Your task to perform on an android device: Clear the cart on costco. Image 0: 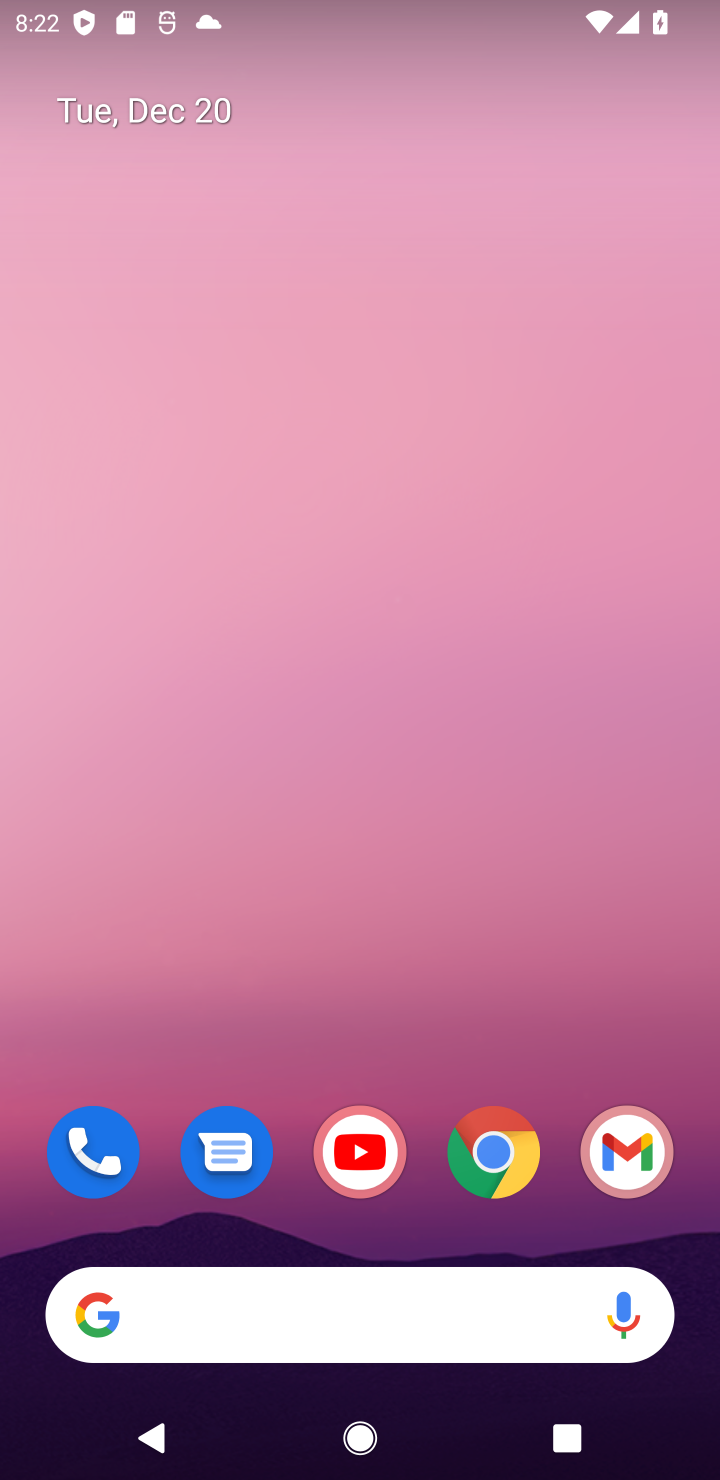
Step 0: click (476, 1151)
Your task to perform on an android device: Clear the cart on costco. Image 1: 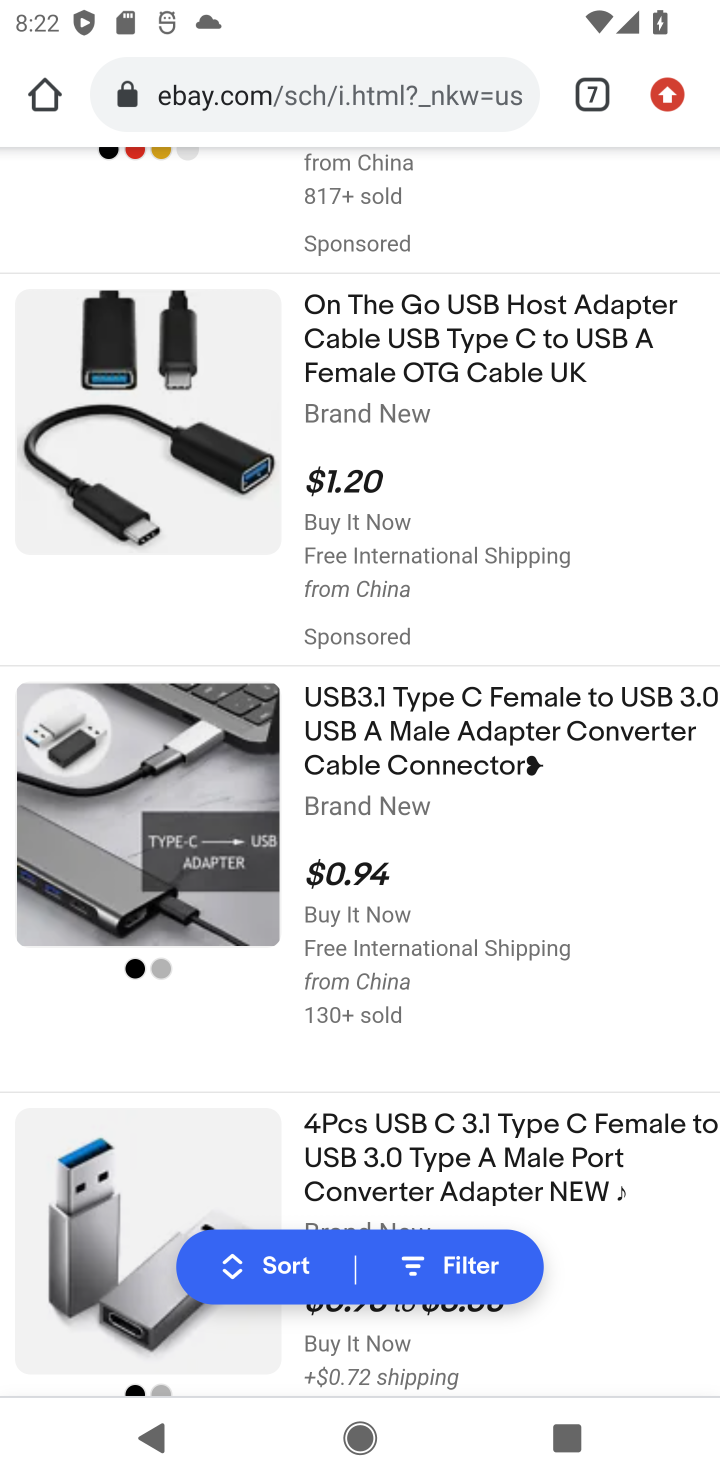
Step 1: click (583, 75)
Your task to perform on an android device: Clear the cart on costco. Image 2: 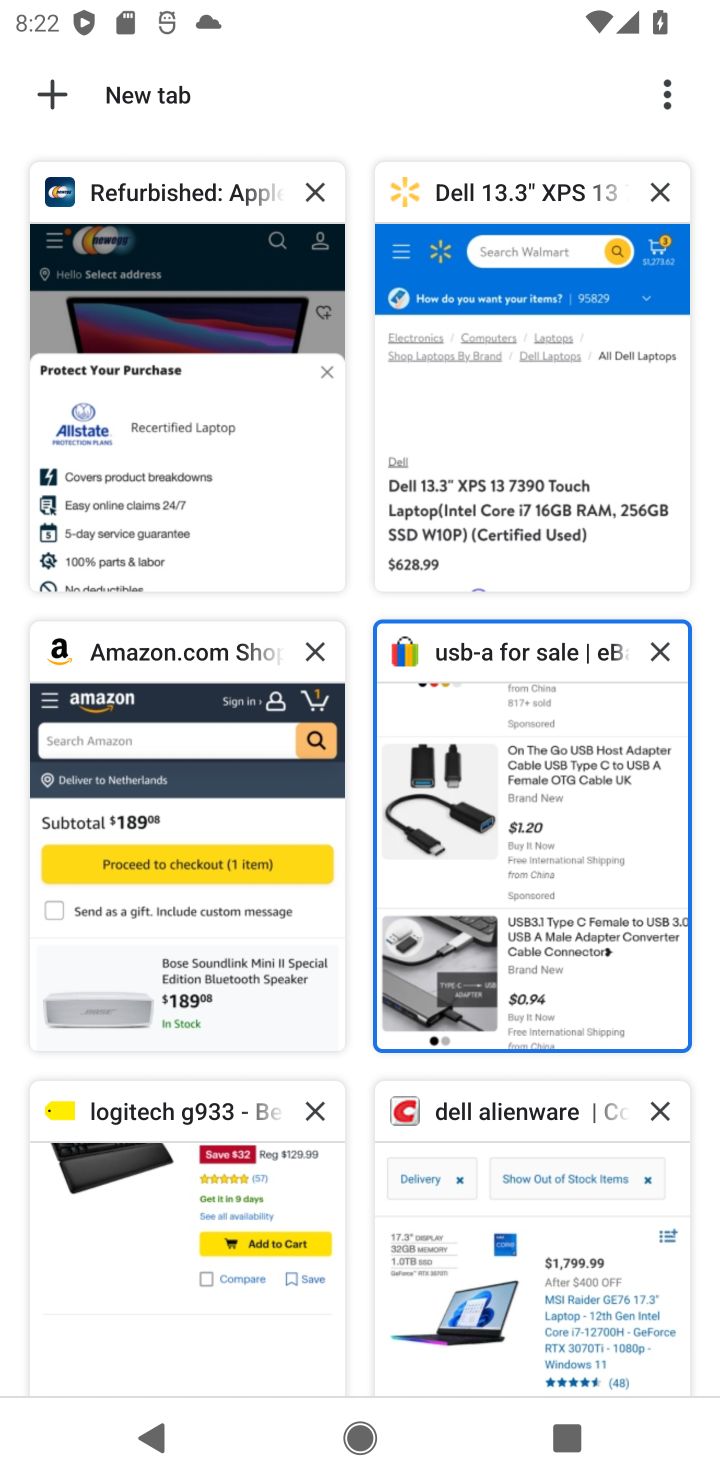
Step 2: click (486, 1184)
Your task to perform on an android device: Clear the cart on costco. Image 3: 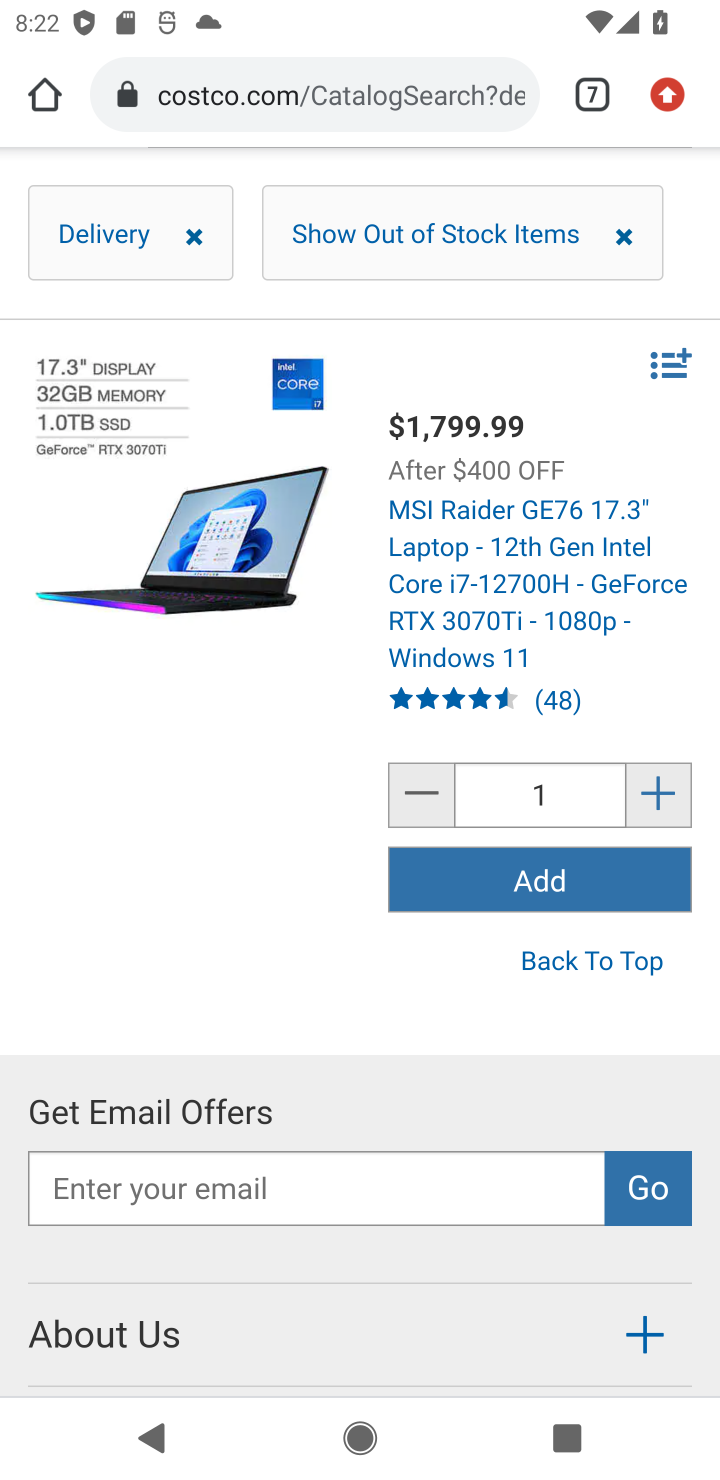
Step 3: drag from (577, 253) to (385, 1444)
Your task to perform on an android device: Clear the cart on costco. Image 4: 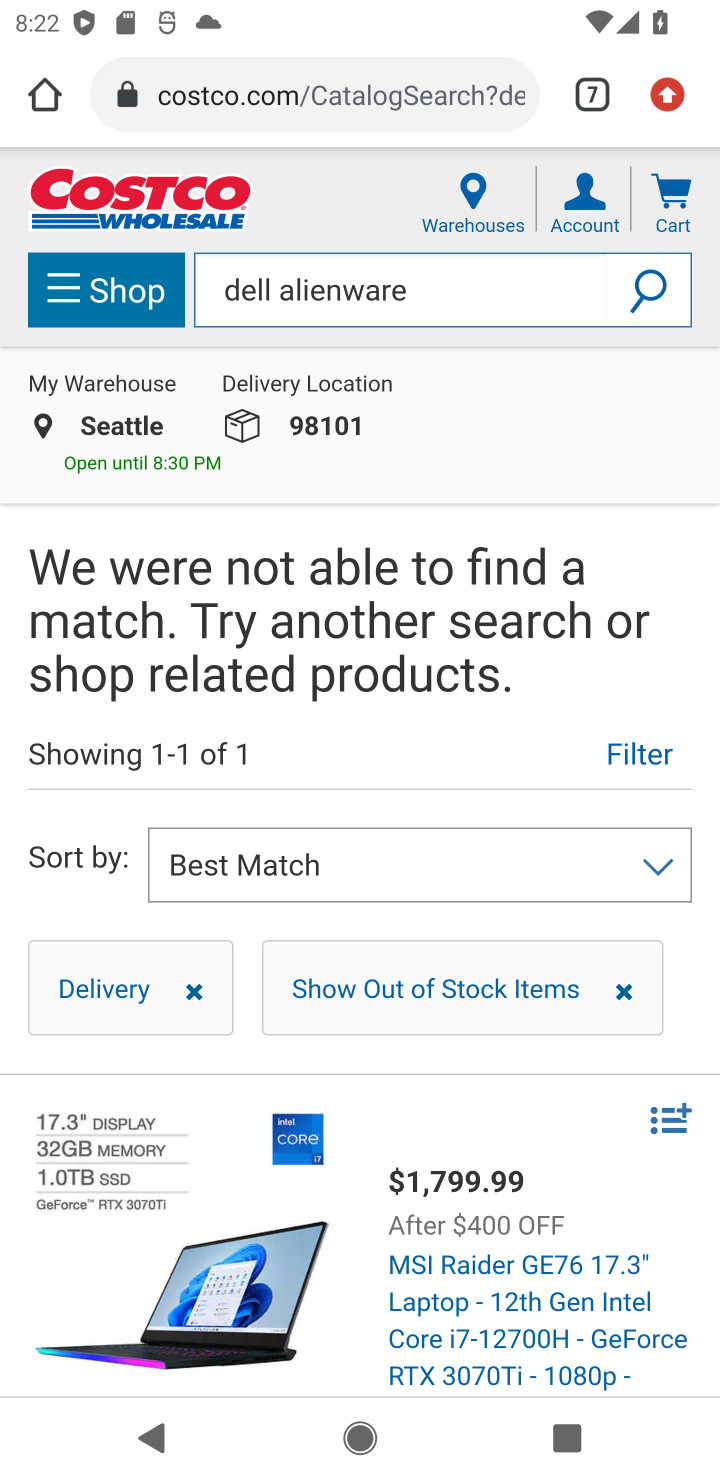
Step 4: click (674, 193)
Your task to perform on an android device: Clear the cart on costco. Image 5: 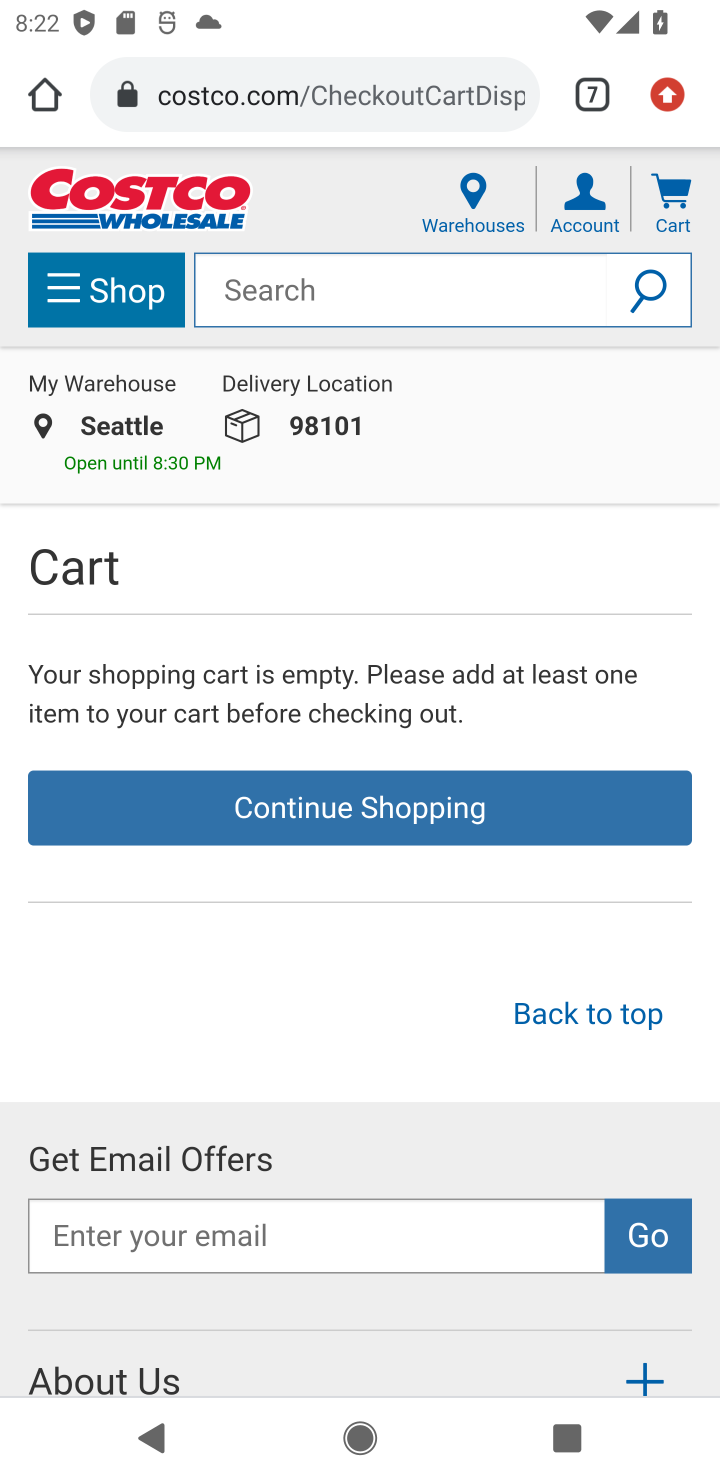
Step 5: task complete